Your task to perform on an android device: uninstall "Microsoft Outlook" Image 0: 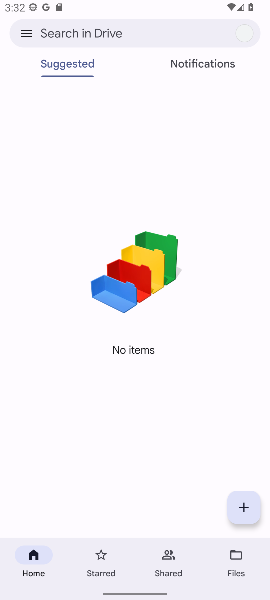
Step 0: press home button
Your task to perform on an android device: uninstall "Microsoft Outlook" Image 1: 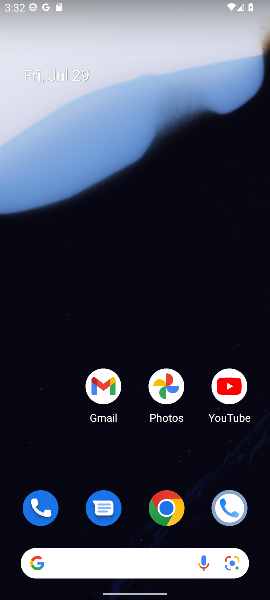
Step 1: drag from (211, 519) to (70, 25)
Your task to perform on an android device: uninstall "Microsoft Outlook" Image 2: 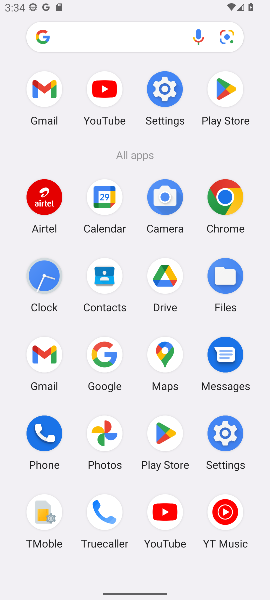
Step 2: click (165, 436)
Your task to perform on an android device: uninstall "Microsoft Outlook" Image 3: 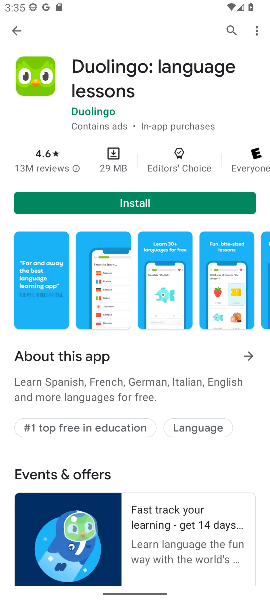
Step 3: press back button
Your task to perform on an android device: uninstall "Microsoft Outlook" Image 4: 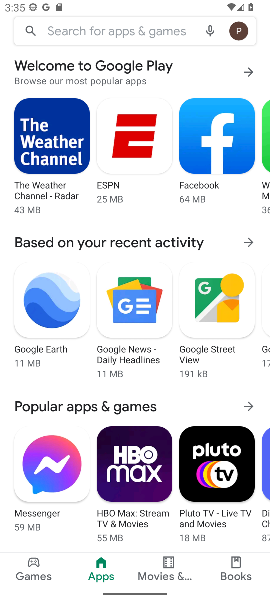
Step 4: click (97, 21)
Your task to perform on an android device: uninstall "Microsoft Outlook" Image 5: 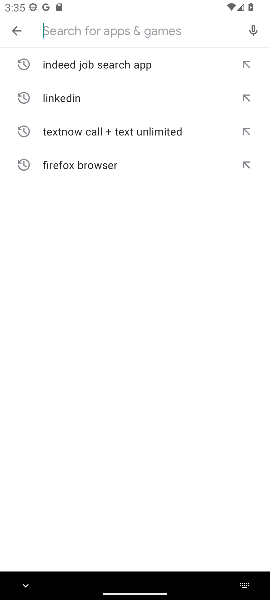
Step 5: type "Microsoft Outlook"
Your task to perform on an android device: uninstall "Microsoft Outlook" Image 6: 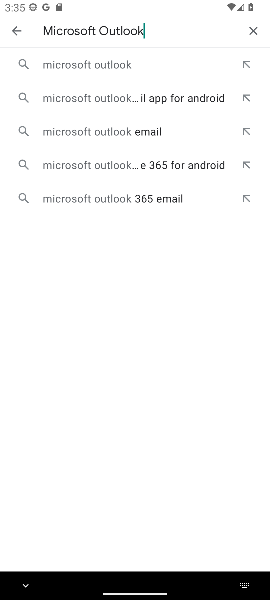
Step 6: click (58, 62)
Your task to perform on an android device: uninstall "Microsoft Outlook" Image 7: 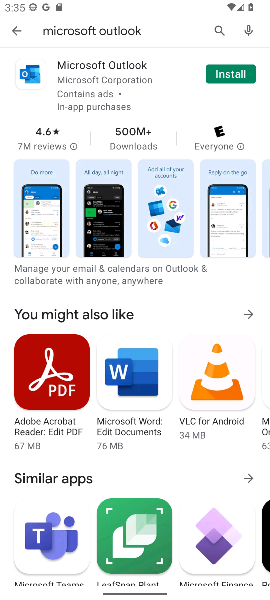
Step 7: task complete